Your task to perform on an android device: What's on my calendar tomorrow? Image 0: 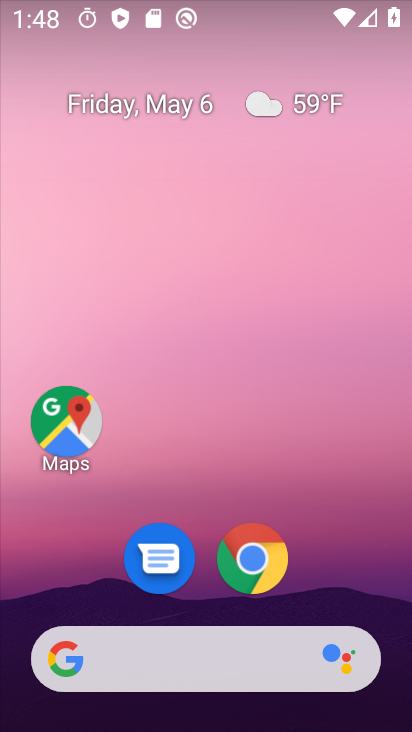
Step 0: drag from (199, 721) to (175, 300)
Your task to perform on an android device: What's on my calendar tomorrow? Image 1: 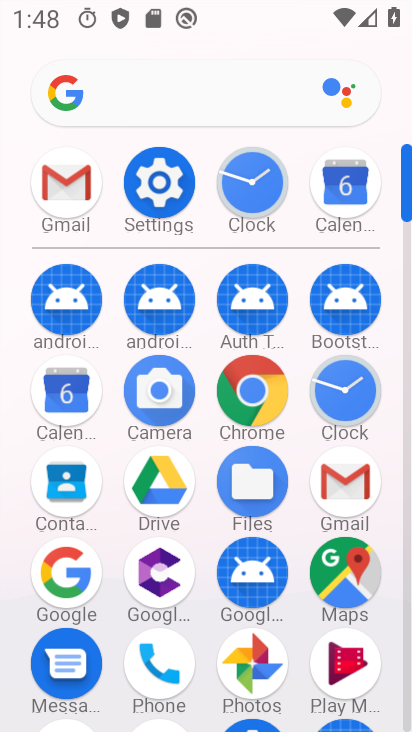
Step 1: click (69, 399)
Your task to perform on an android device: What's on my calendar tomorrow? Image 2: 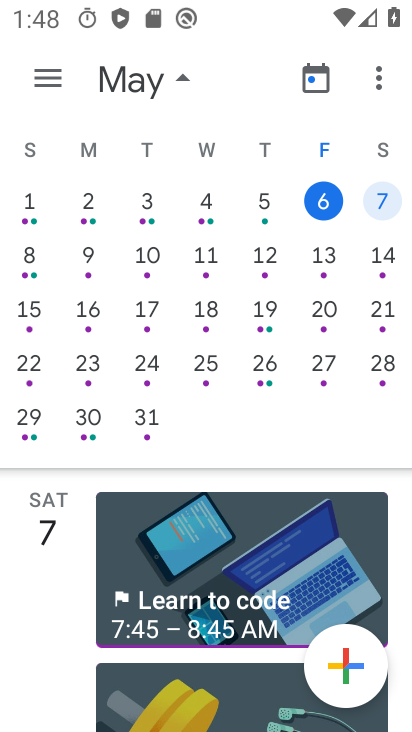
Step 2: click (382, 200)
Your task to perform on an android device: What's on my calendar tomorrow? Image 3: 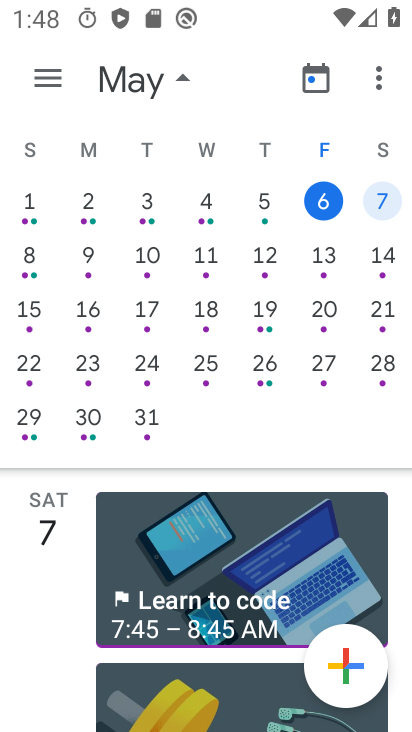
Step 3: task complete